Your task to perform on an android device: Open Chrome and go to the settings page Image 0: 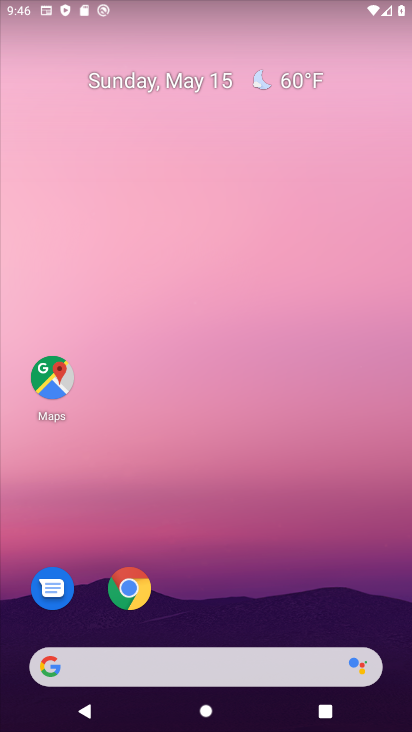
Step 0: drag from (225, 630) to (229, 355)
Your task to perform on an android device: Open Chrome and go to the settings page Image 1: 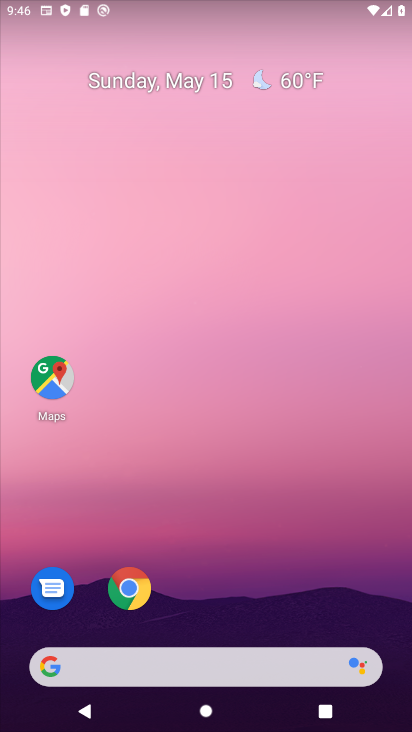
Step 1: click (133, 596)
Your task to perform on an android device: Open Chrome and go to the settings page Image 2: 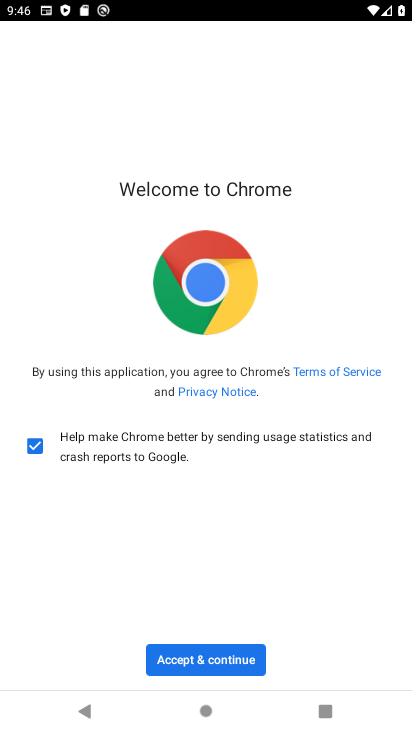
Step 2: click (193, 653)
Your task to perform on an android device: Open Chrome and go to the settings page Image 3: 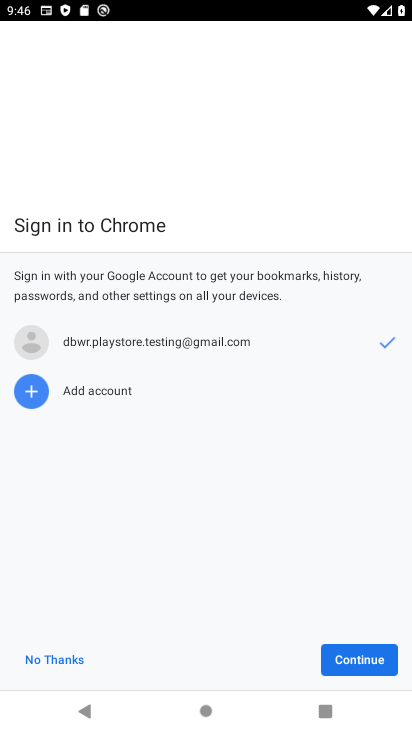
Step 3: click (360, 663)
Your task to perform on an android device: Open Chrome and go to the settings page Image 4: 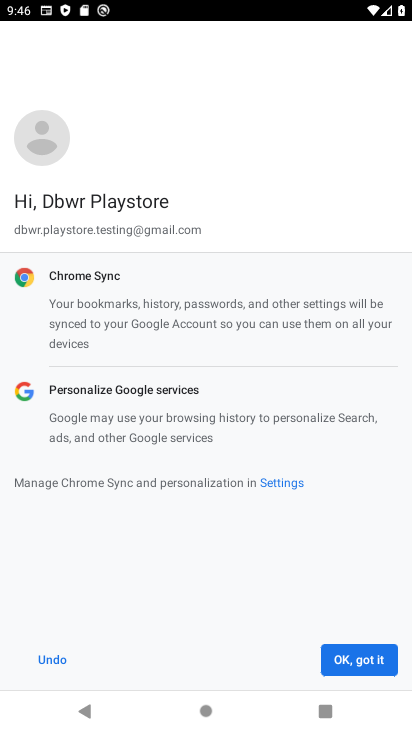
Step 4: click (360, 663)
Your task to perform on an android device: Open Chrome and go to the settings page Image 5: 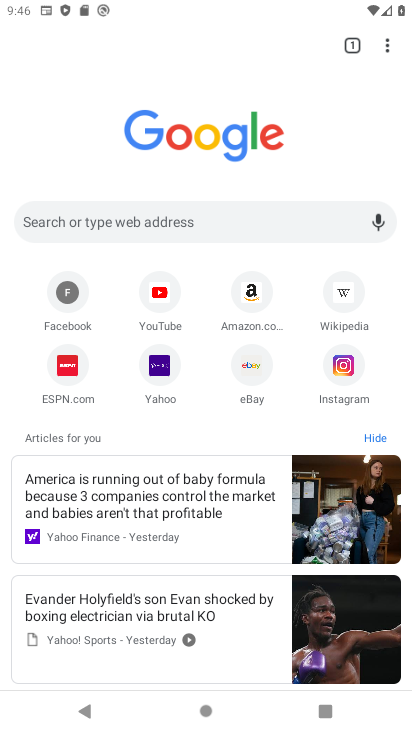
Step 5: click (390, 49)
Your task to perform on an android device: Open Chrome and go to the settings page Image 6: 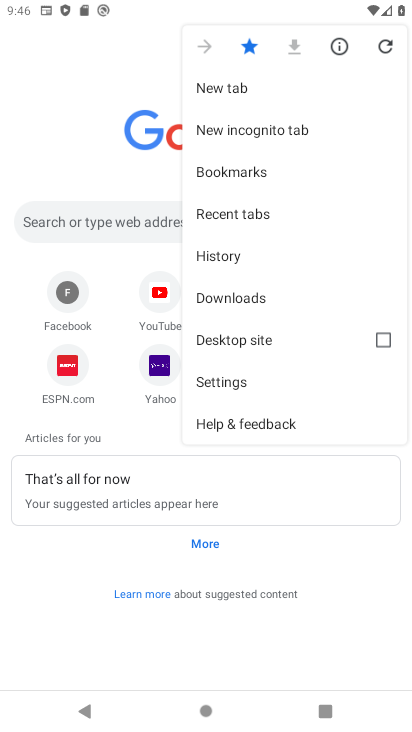
Step 6: click (234, 380)
Your task to perform on an android device: Open Chrome and go to the settings page Image 7: 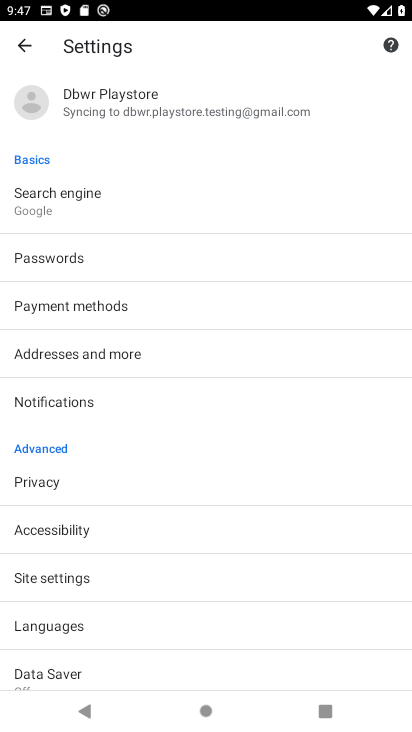
Step 7: task complete